Your task to perform on an android device: change the upload size in google photos Image 0: 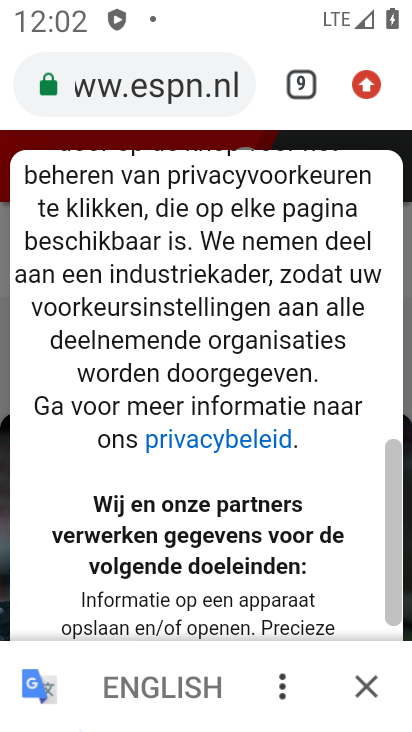
Step 0: press home button
Your task to perform on an android device: change the upload size in google photos Image 1: 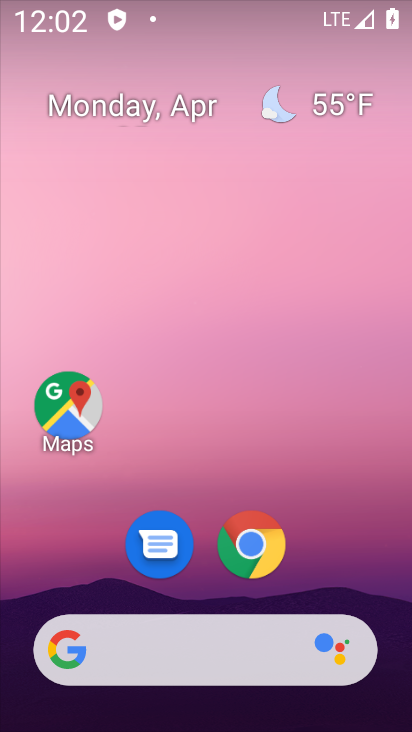
Step 1: drag from (197, 376) to (61, 71)
Your task to perform on an android device: change the upload size in google photos Image 2: 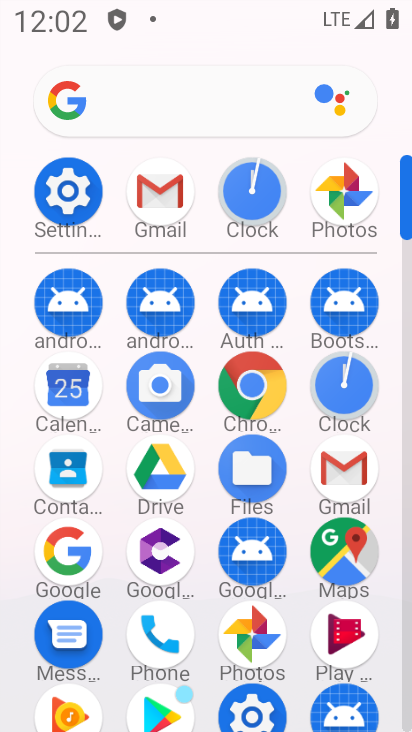
Step 2: click (347, 202)
Your task to perform on an android device: change the upload size in google photos Image 3: 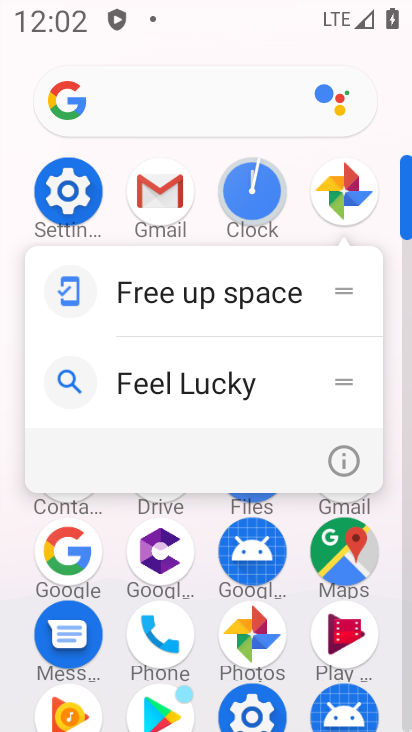
Step 3: click (347, 202)
Your task to perform on an android device: change the upload size in google photos Image 4: 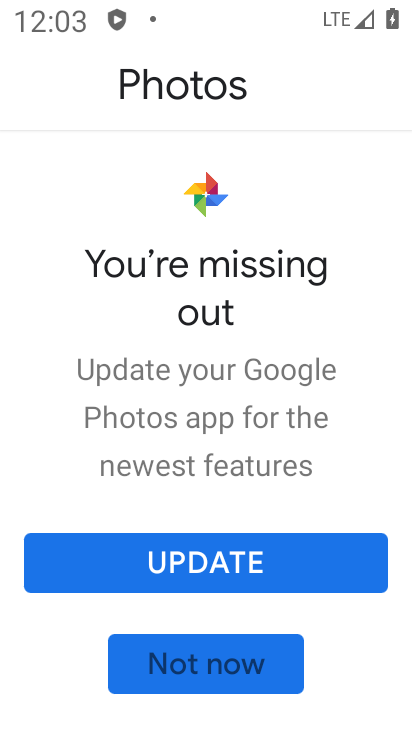
Step 4: click (241, 679)
Your task to perform on an android device: change the upload size in google photos Image 5: 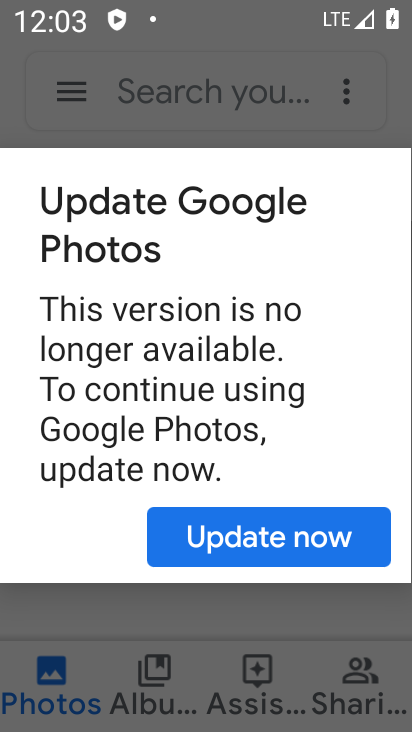
Step 5: click (251, 543)
Your task to perform on an android device: change the upload size in google photos Image 6: 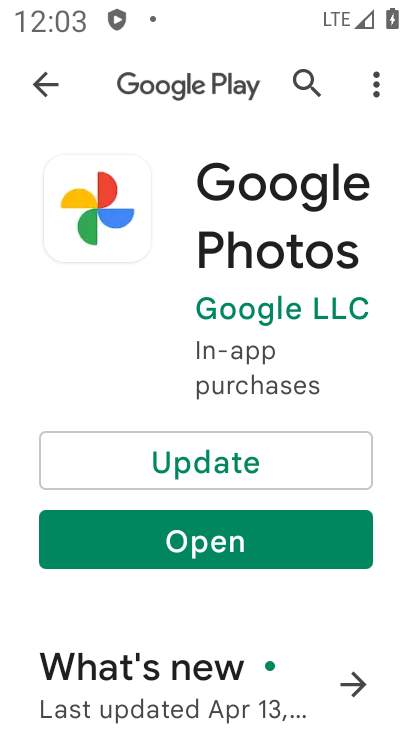
Step 6: press back button
Your task to perform on an android device: change the upload size in google photos Image 7: 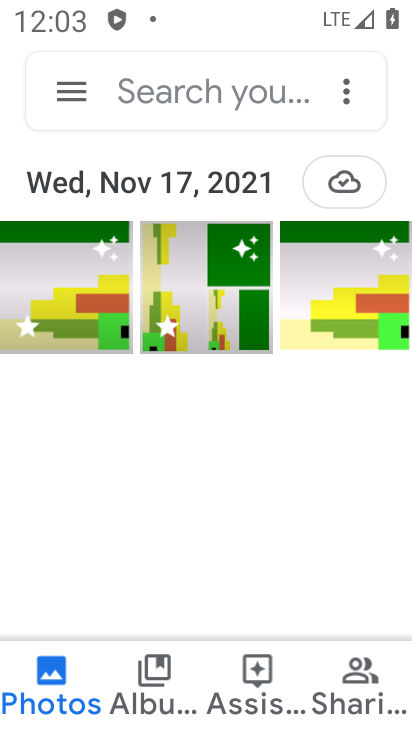
Step 7: click (62, 94)
Your task to perform on an android device: change the upload size in google photos Image 8: 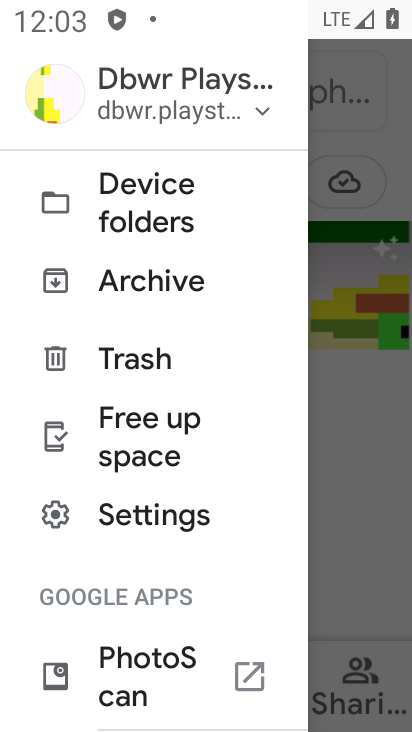
Step 8: click (142, 523)
Your task to perform on an android device: change the upload size in google photos Image 9: 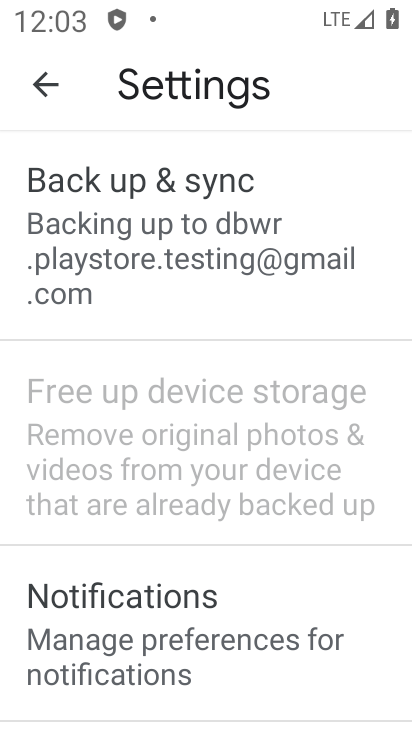
Step 9: click (157, 217)
Your task to perform on an android device: change the upload size in google photos Image 10: 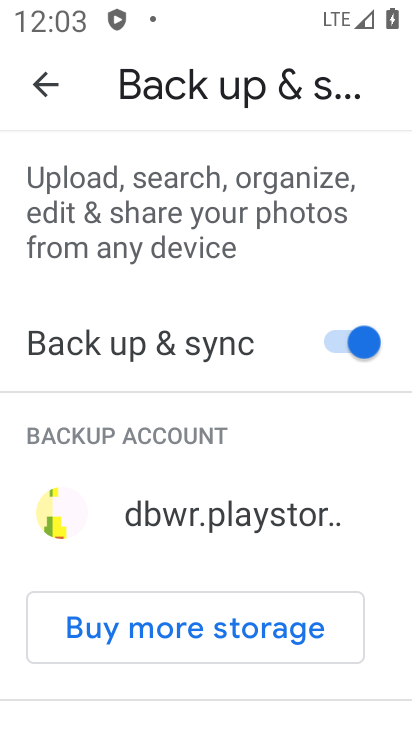
Step 10: drag from (208, 556) to (101, 167)
Your task to perform on an android device: change the upload size in google photos Image 11: 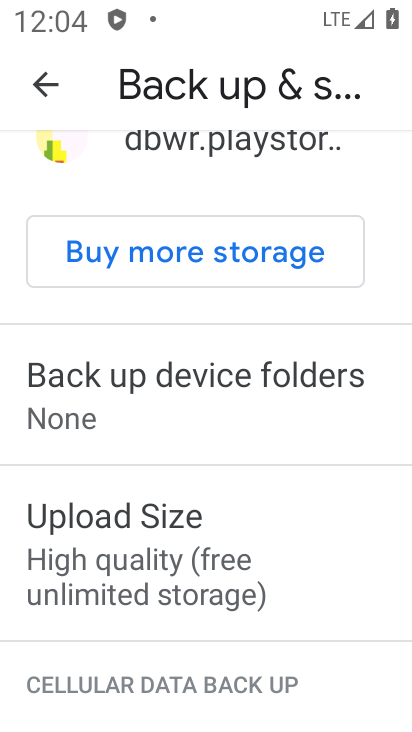
Step 11: click (164, 582)
Your task to perform on an android device: change the upload size in google photos Image 12: 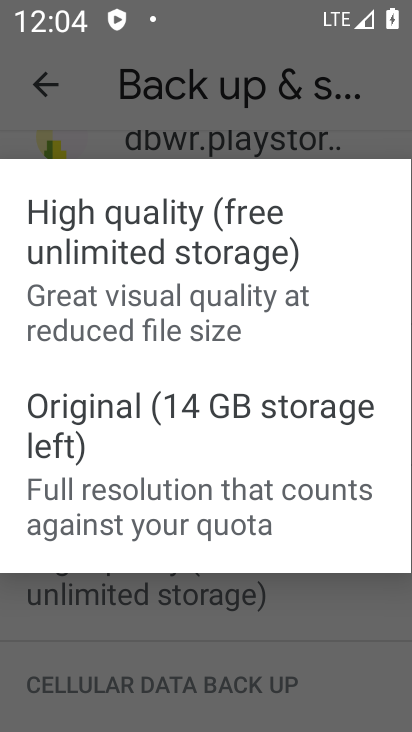
Step 12: click (138, 430)
Your task to perform on an android device: change the upload size in google photos Image 13: 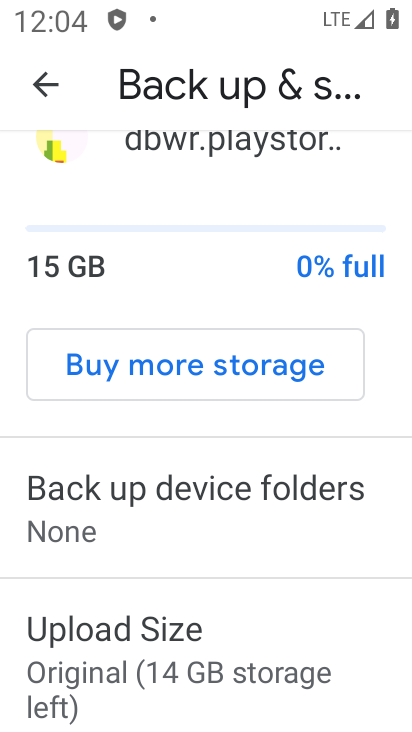
Step 13: task complete